Your task to perform on an android device: Do I have any events today? Image 0: 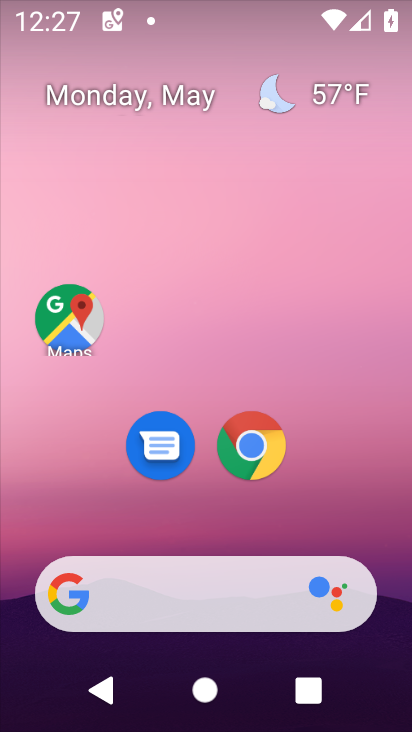
Step 0: drag from (366, 424) to (254, 25)
Your task to perform on an android device: Do I have any events today? Image 1: 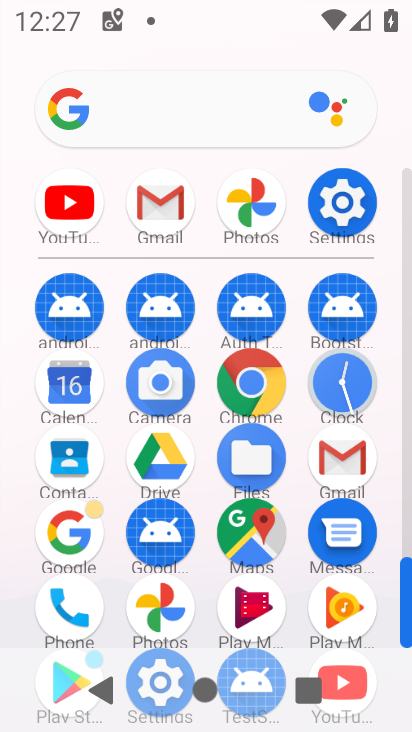
Step 1: click (75, 390)
Your task to perform on an android device: Do I have any events today? Image 2: 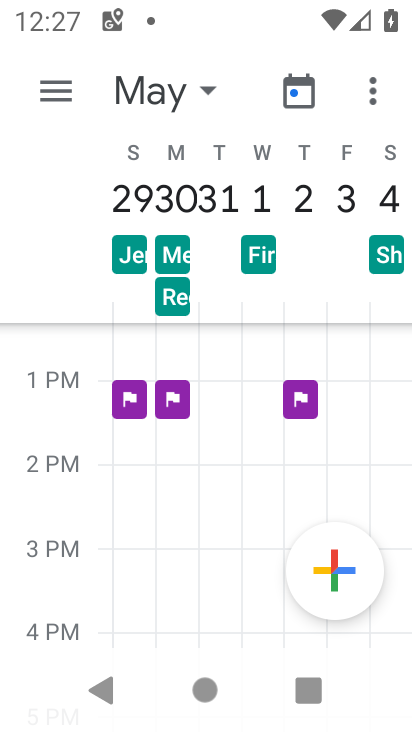
Step 2: click (56, 92)
Your task to perform on an android device: Do I have any events today? Image 3: 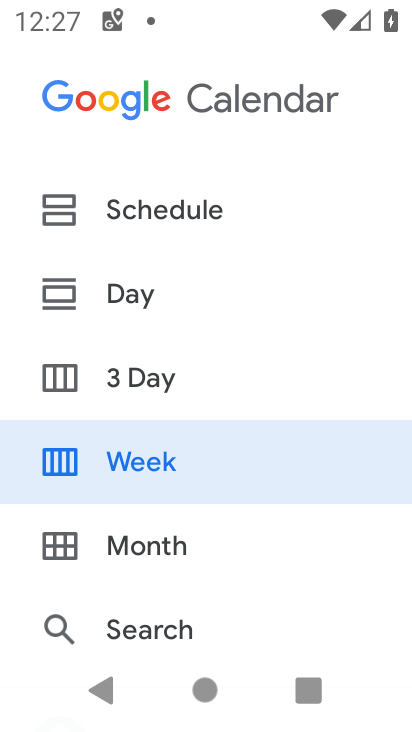
Step 3: task complete